Your task to perform on an android device: Open Reddit.com Image 0: 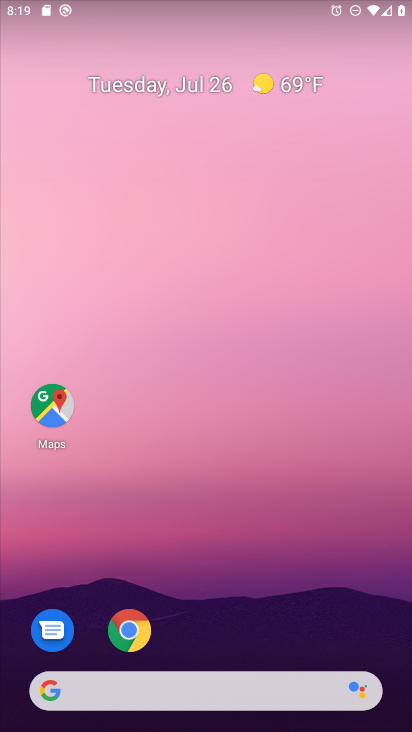
Step 0: drag from (157, 644) to (211, 148)
Your task to perform on an android device: Open Reddit.com Image 1: 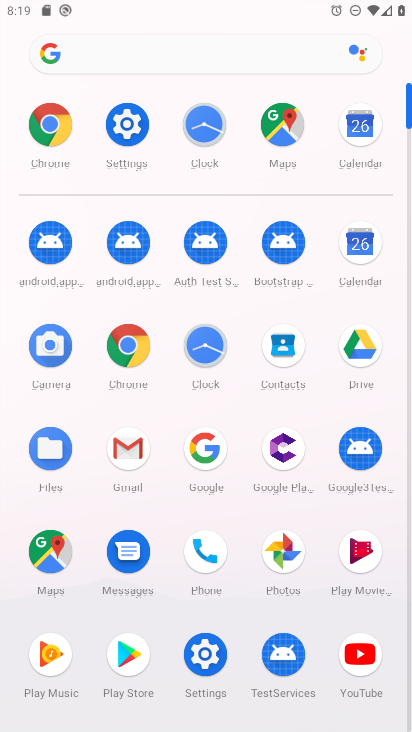
Step 1: click (130, 365)
Your task to perform on an android device: Open Reddit.com Image 2: 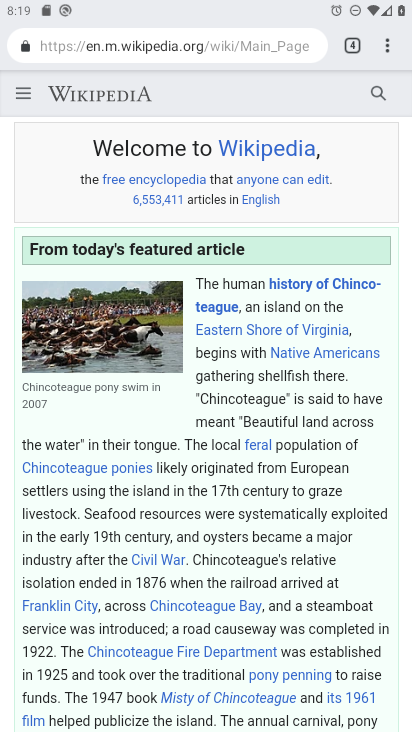
Step 2: click (349, 37)
Your task to perform on an android device: Open Reddit.com Image 3: 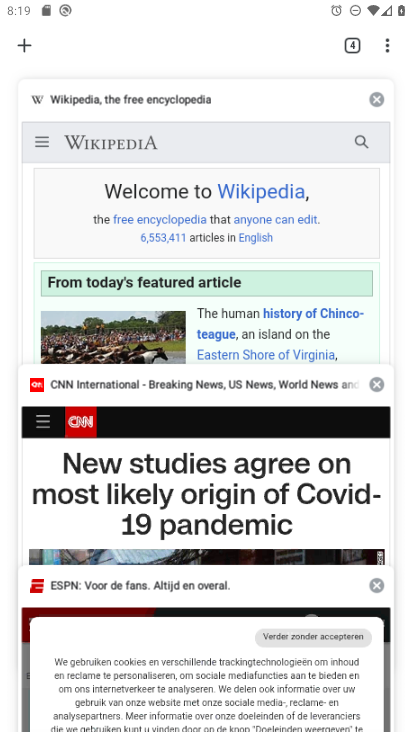
Step 3: click (21, 55)
Your task to perform on an android device: Open Reddit.com Image 4: 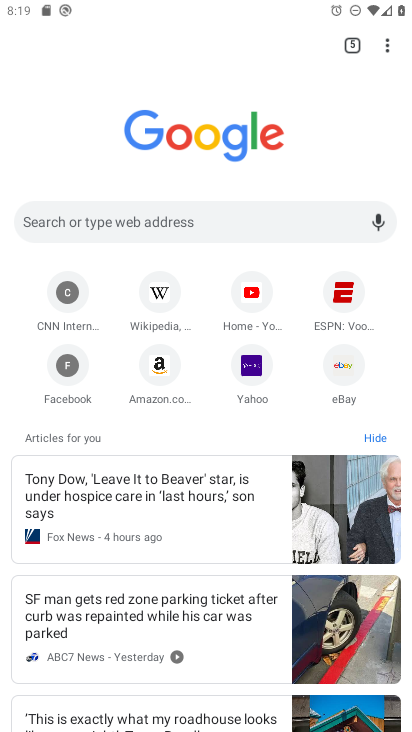
Step 4: click (116, 218)
Your task to perform on an android device: Open Reddit.com Image 5: 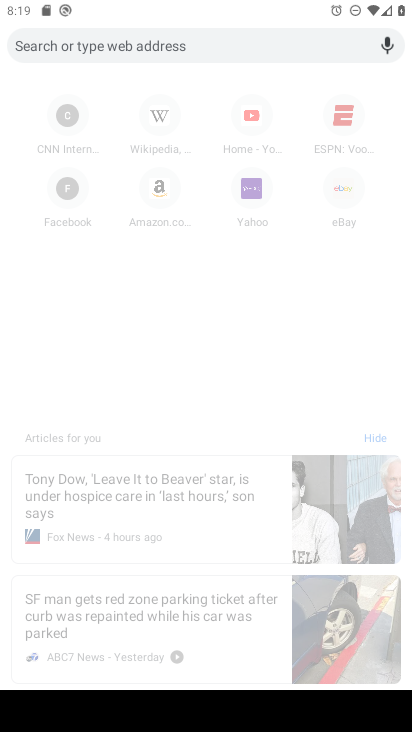
Step 5: type "Reddit.com"
Your task to perform on an android device: Open Reddit.com Image 6: 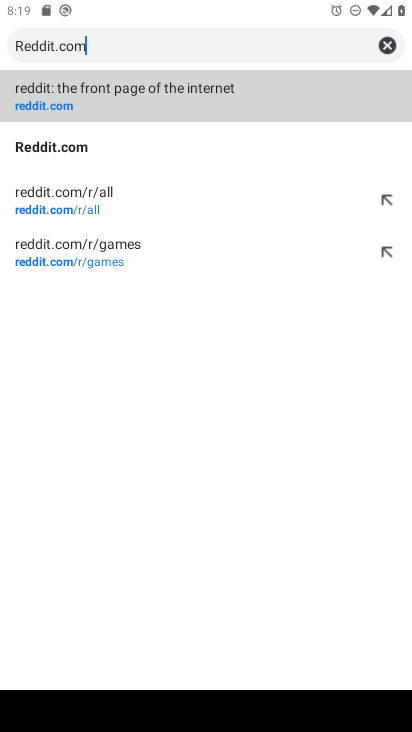
Step 6: type ""
Your task to perform on an android device: Open Reddit.com Image 7: 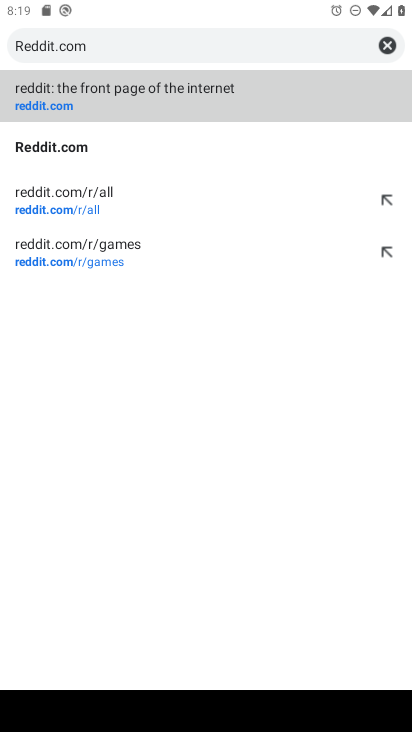
Step 7: click (143, 93)
Your task to perform on an android device: Open Reddit.com Image 8: 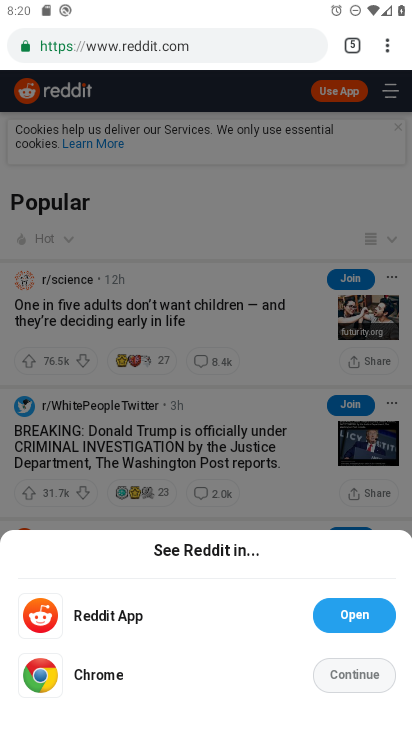
Step 8: click (357, 668)
Your task to perform on an android device: Open Reddit.com Image 9: 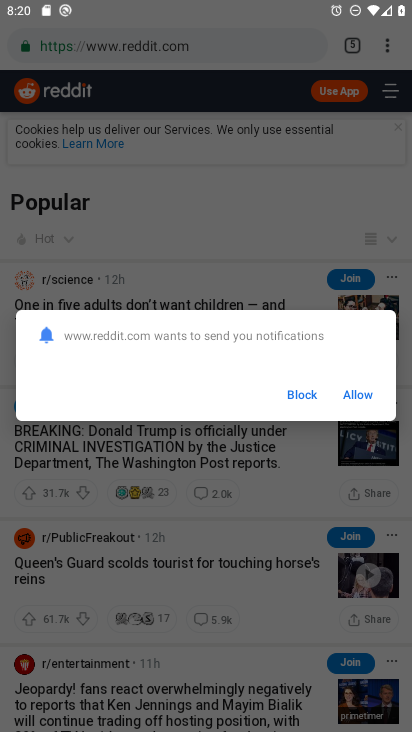
Step 9: click (365, 396)
Your task to perform on an android device: Open Reddit.com Image 10: 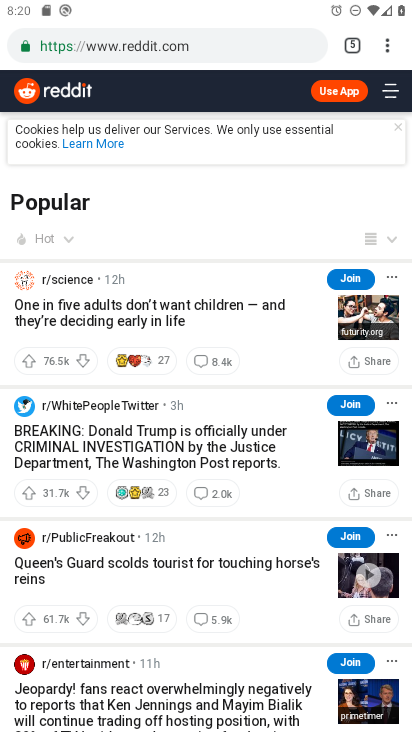
Step 10: task complete